Your task to perform on an android device: Open Chrome and go to settings Image 0: 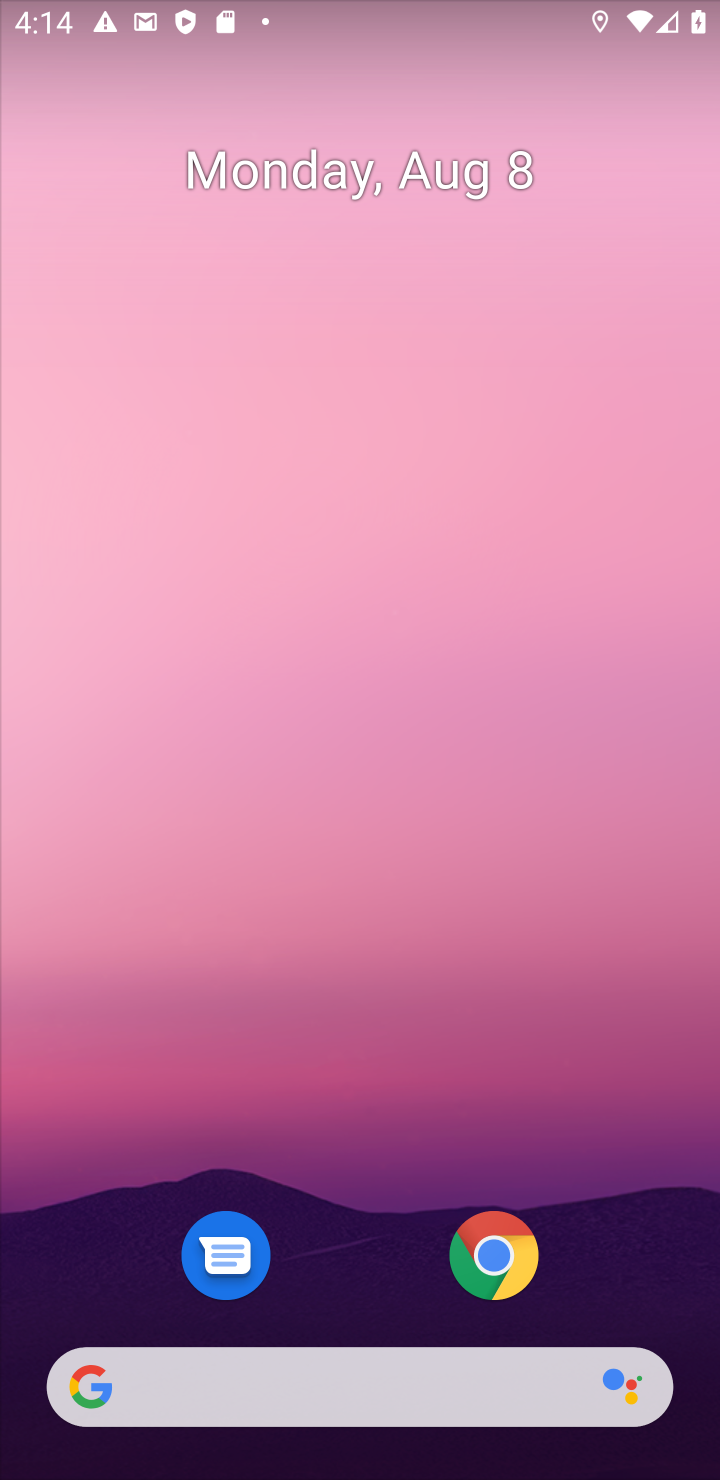
Step 0: click (497, 1259)
Your task to perform on an android device: Open Chrome and go to settings Image 1: 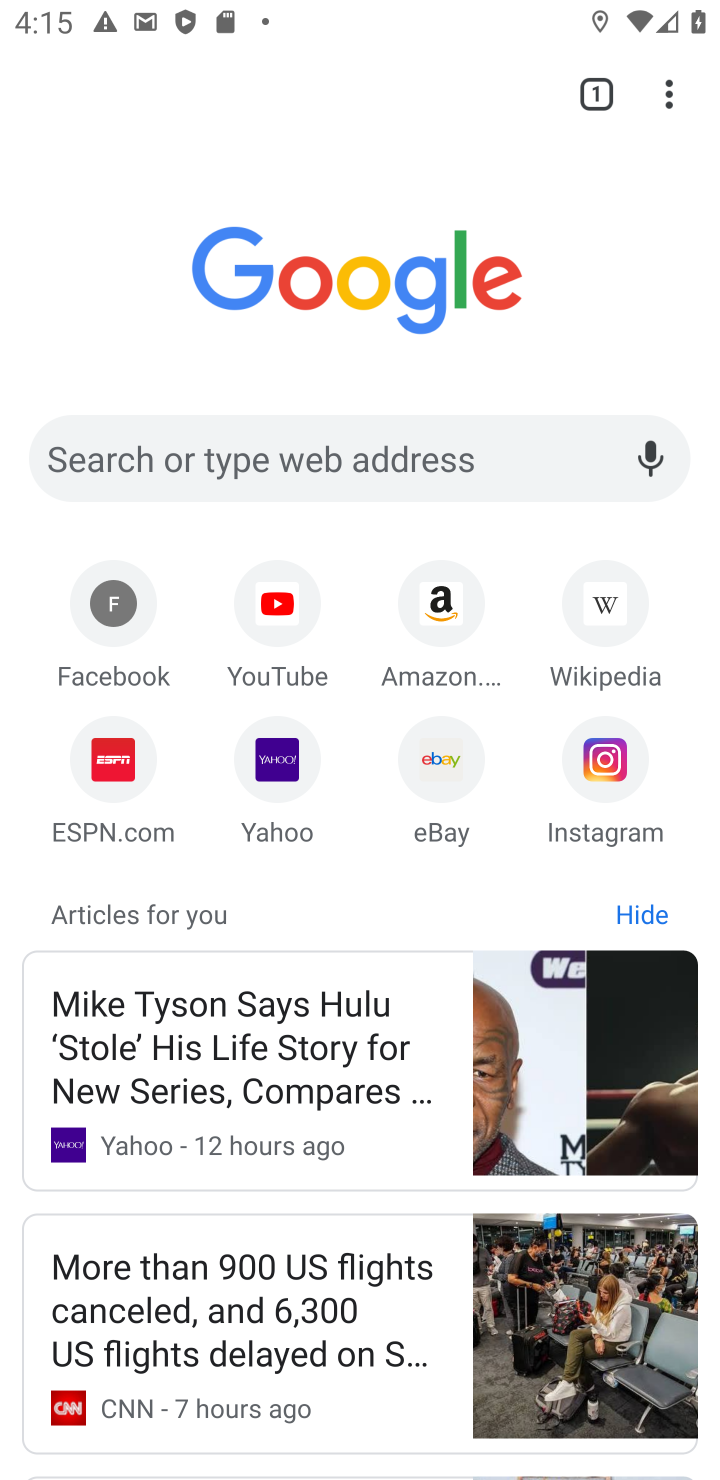
Step 1: click (668, 94)
Your task to perform on an android device: Open Chrome and go to settings Image 2: 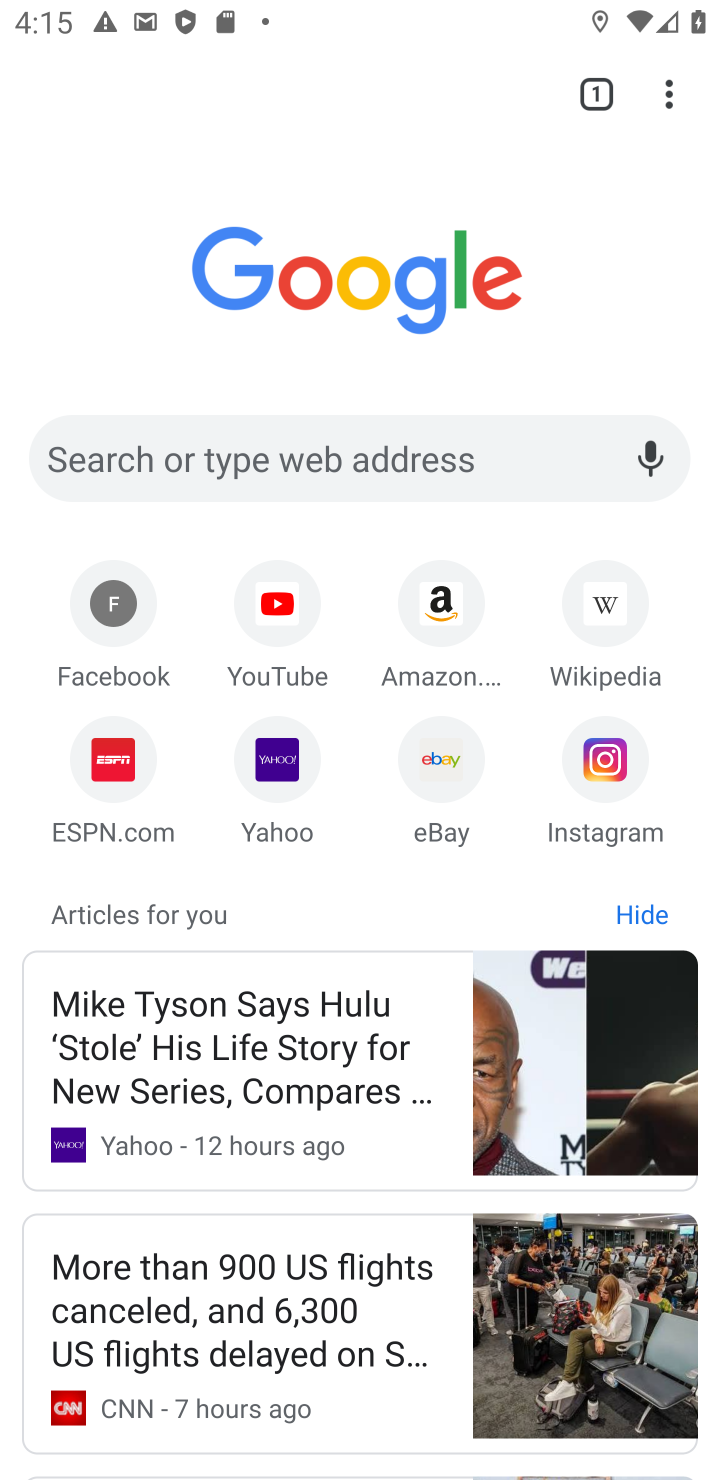
Step 2: click (669, 94)
Your task to perform on an android device: Open Chrome and go to settings Image 3: 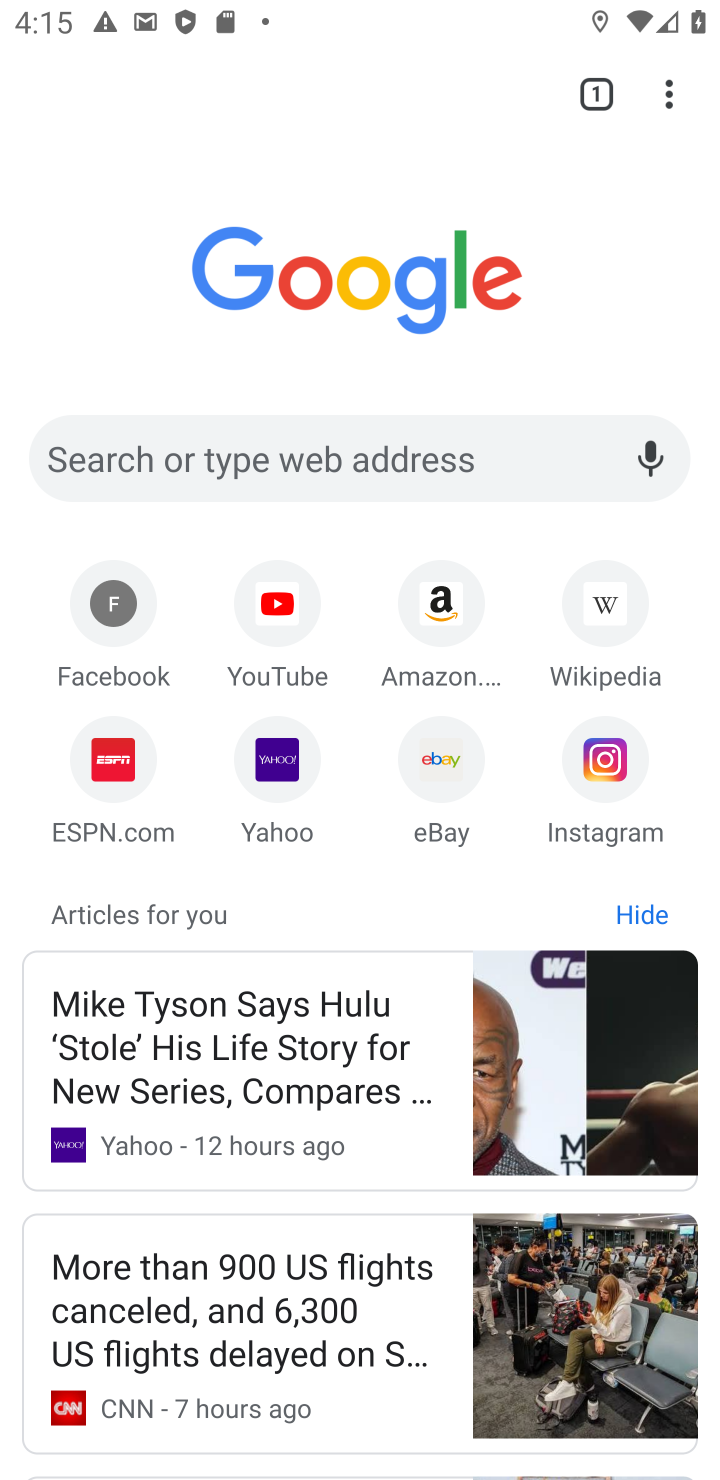
Step 3: click (669, 94)
Your task to perform on an android device: Open Chrome and go to settings Image 4: 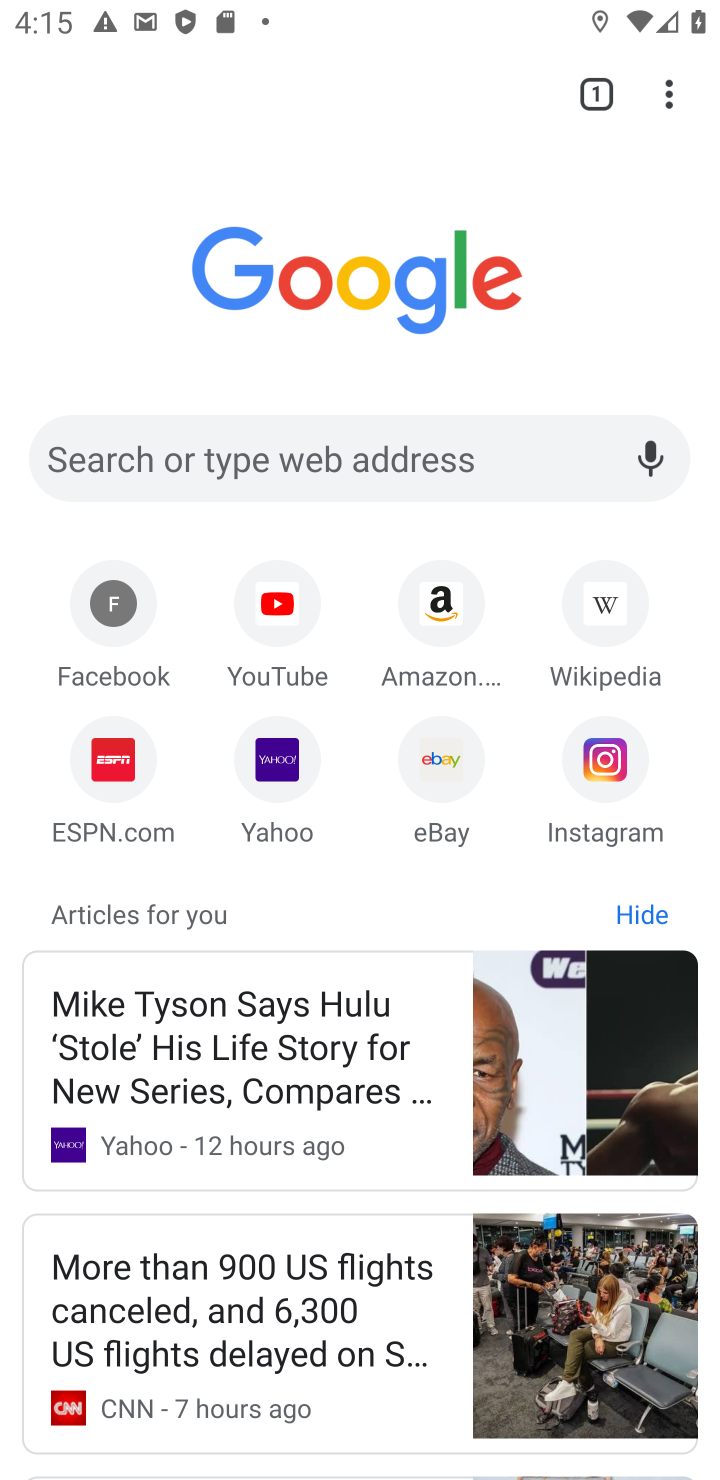
Step 4: task complete